Your task to perform on an android device: What's on my calendar tomorrow? Image 0: 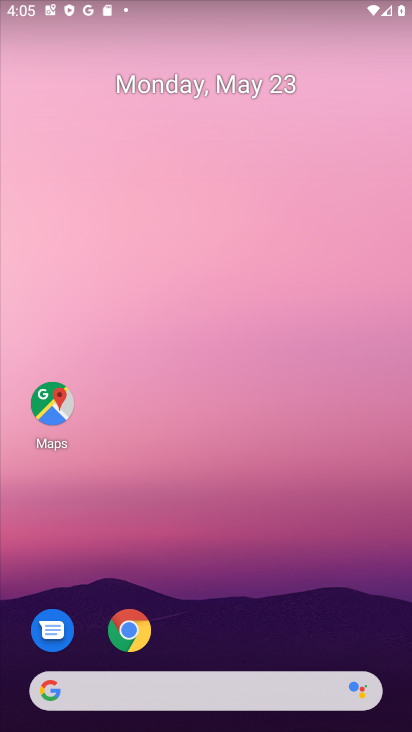
Step 0: press home button
Your task to perform on an android device: What's on my calendar tomorrow? Image 1: 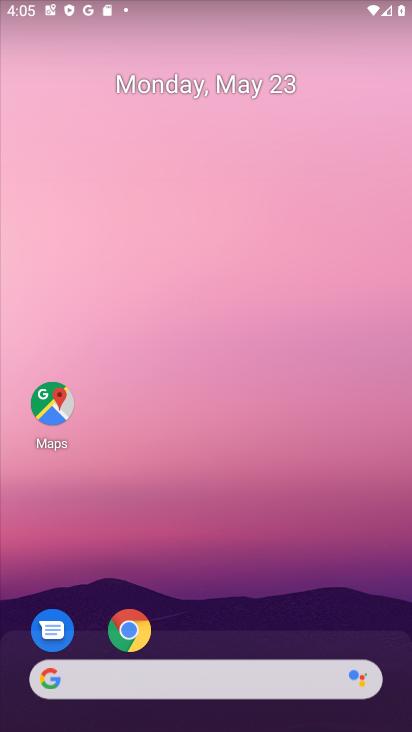
Step 1: drag from (217, 651) to (231, 38)
Your task to perform on an android device: What's on my calendar tomorrow? Image 2: 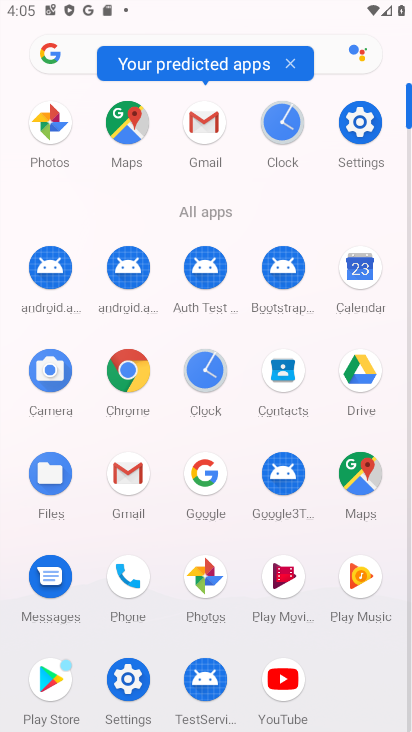
Step 2: click (359, 266)
Your task to perform on an android device: What's on my calendar tomorrow? Image 3: 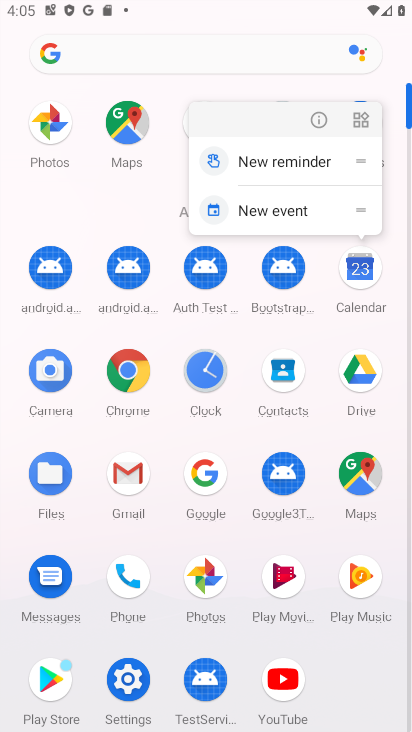
Step 3: click (356, 264)
Your task to perform on an android device: What's on my calendar tomorrow? Image 4: 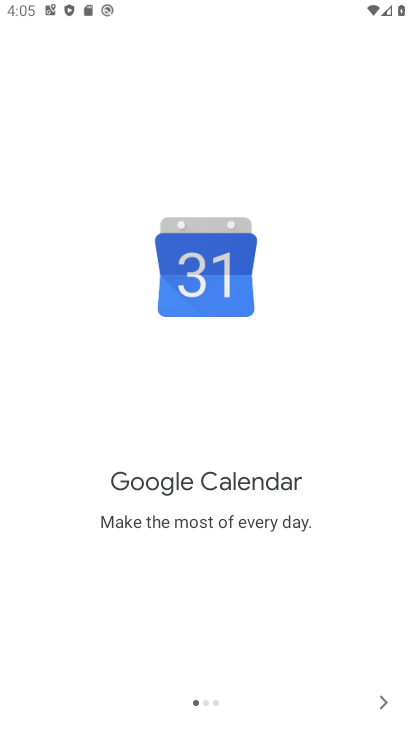
Step 4: click (380, 699)
Your task to perform on an android device: What's on my calendar tomorrow? Image 5: 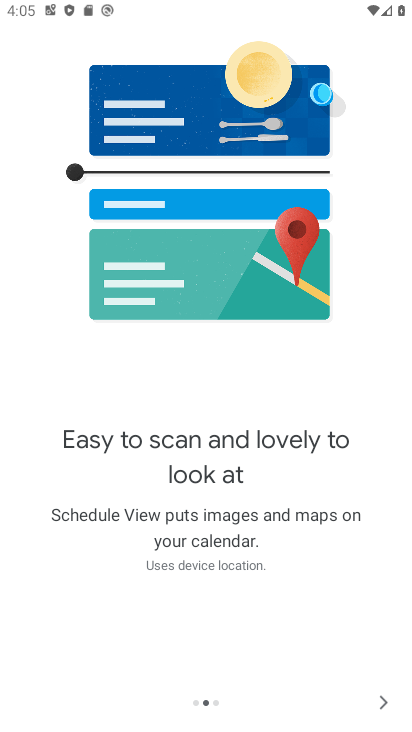
Step 5: click (381, 703)
Your task to perform on an android device: What's on my calendar tomorrow? Image 6: 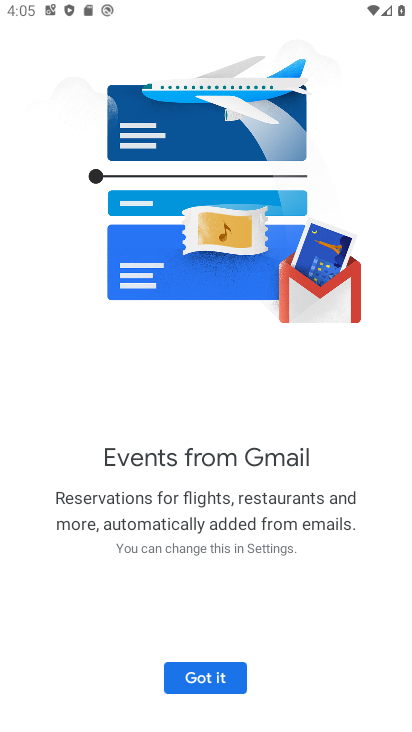
Step 6: click (209, 672)
Your task to perform on an android device: What's on my calendar tomorrow? Image 7: 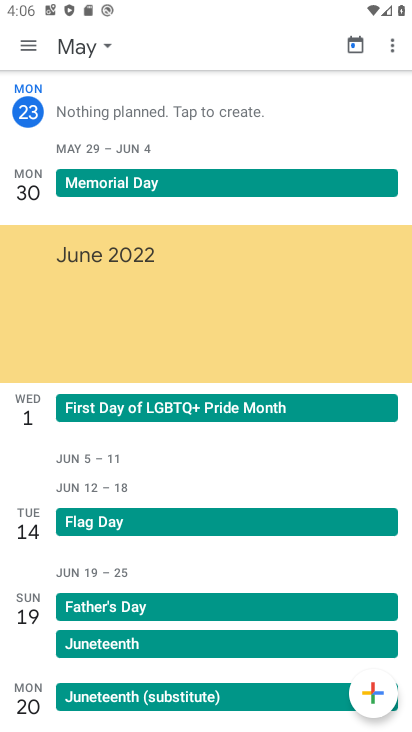
Step 7: drag from (115, 208) to (134, 615)
Your task to perform on an android device: What's on my calendar tomorrow? Image 8: 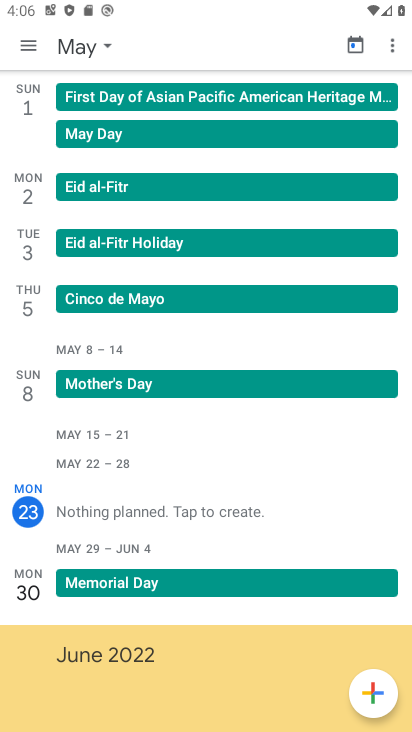
Step 8: drag from (116, 496) to (117, 176)
Your task to perform on an android device: What's on my calendar tomorrow? Image 9: 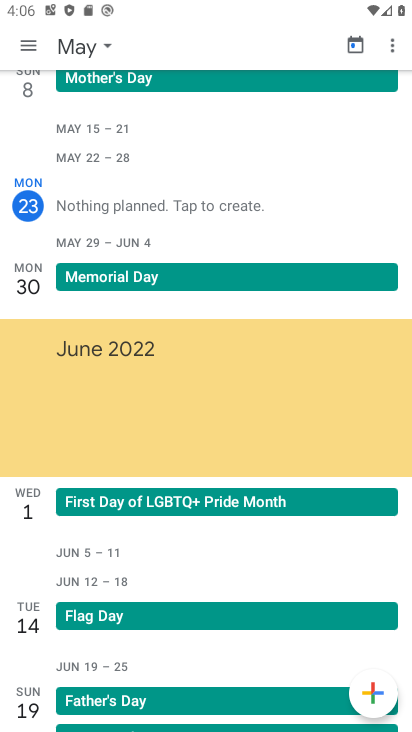
Step 9: click (106, 45)
Your task to perform on an android device: What's on my calendar tomorrow? Image 10: 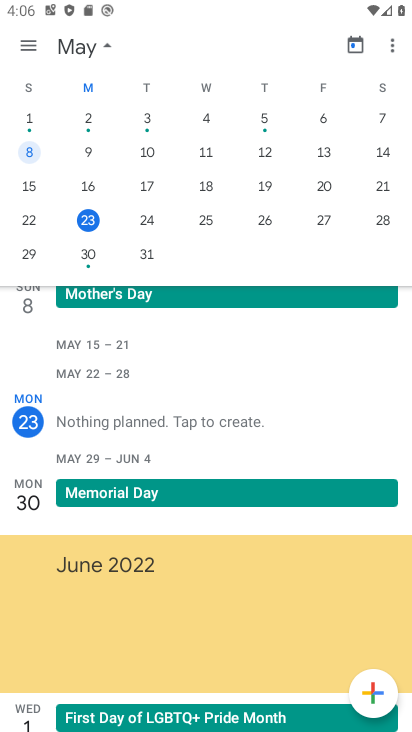
Step 10: click (151, 220)
Your task to perform on an android device: What's on my calendar tomorrow? Image 11: 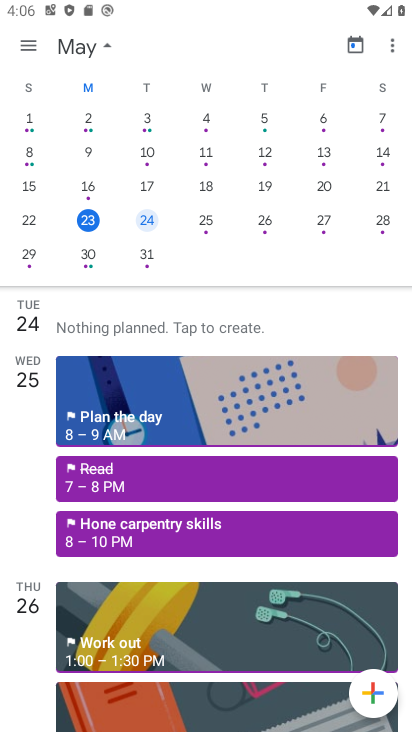
Step 11: click (100, 42)
Your task to perform on an android device: What's on my calendar tomorrow? Image 12: 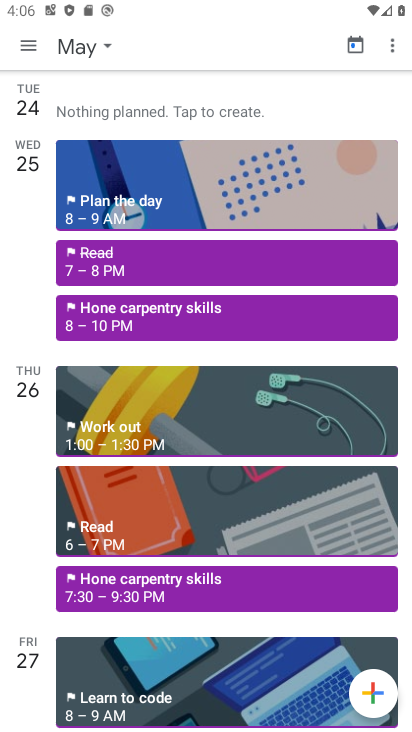
Step 12: click (43, 106)
Your task to perform on an android device: What's on my calendar tomorrow? Image 13: 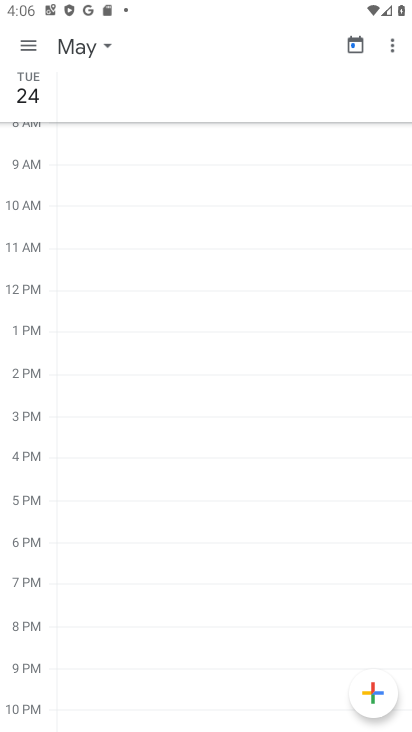
Step 13: task complete